Your task to perform on an android device: Clear the shopping cart on walmart. Add "usb-c to usb-b" to the cart on walmart, then select checkout. Image 0: 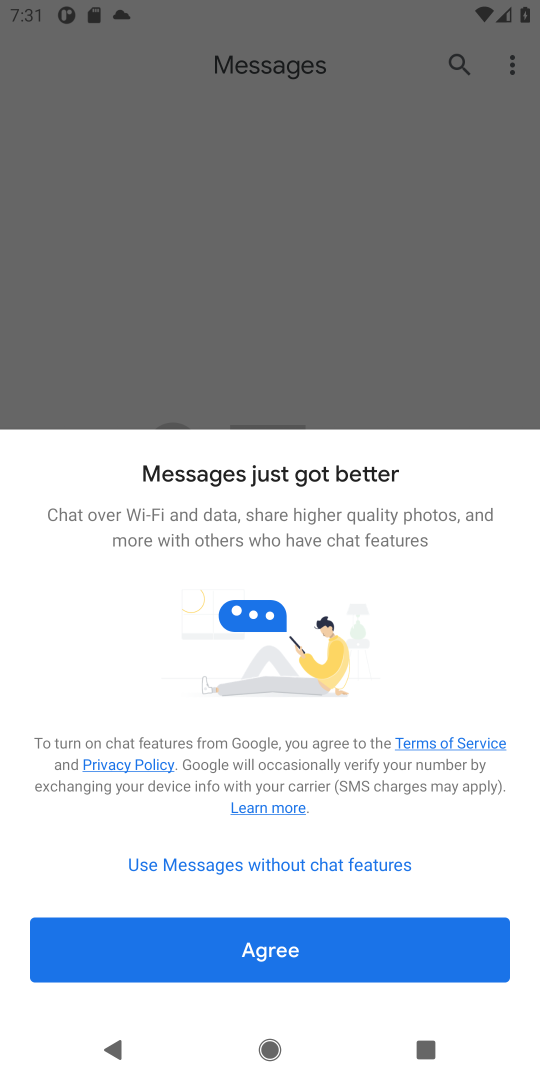
Step 0: press home button
Your task to perform on an android device: Clear the shopping cart on walmart. Add "usb-c to usb-b" to the cart on walmart, then select checkout. Image 1: 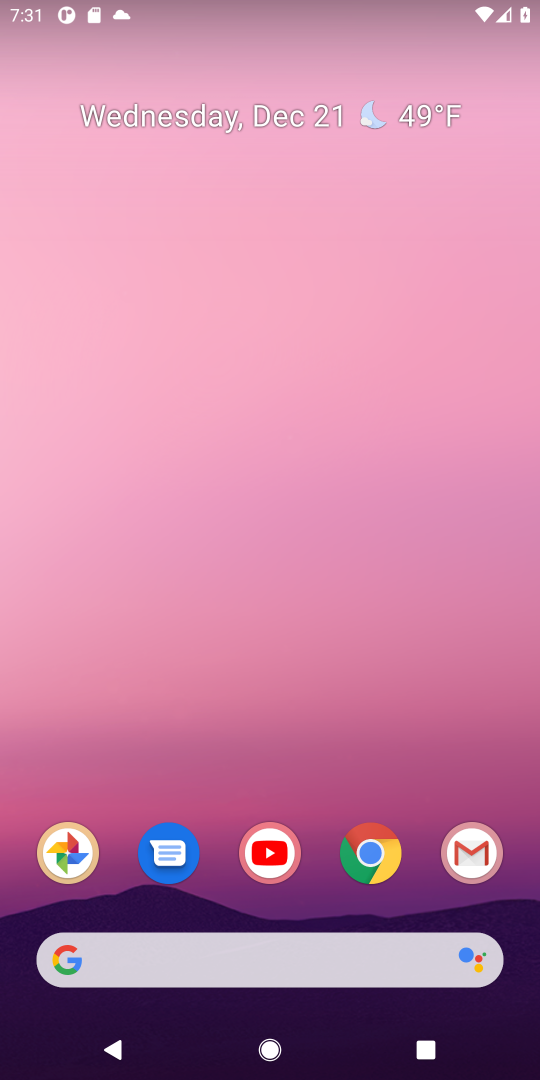
Step 1: click (362, 846)
Your task to perform on an android device: Clear the shopping cart on walmart. Add "usb-c to usb-b" to the cart on walmart, then select checkout. Image 2: 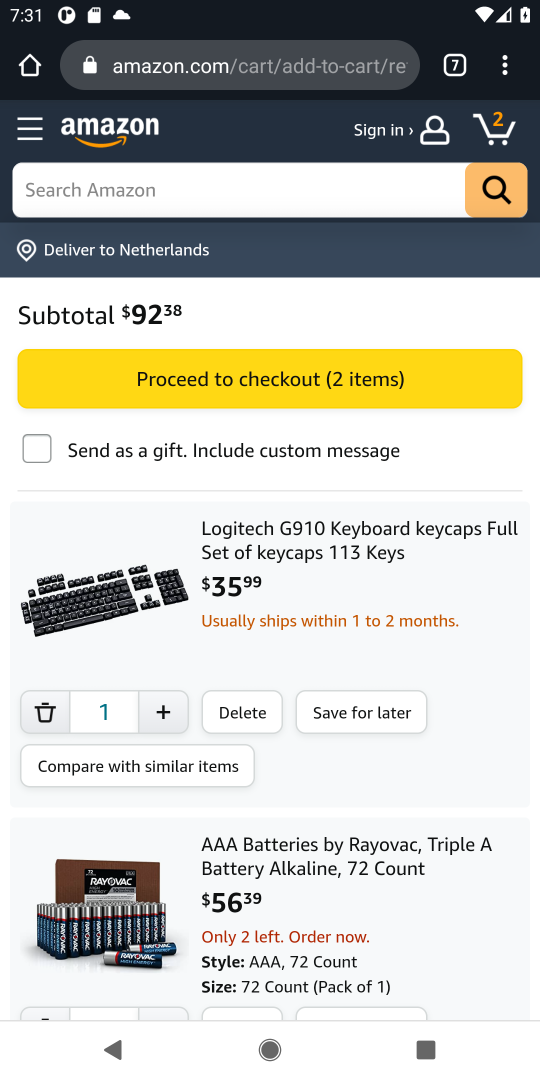
Step 2: click (455, 65)
Your task to perform on an android device: Clear the shopping cart on walmart. Add "usb-c to usb-b" to the cart on walmart, then select checkout. Image 3: 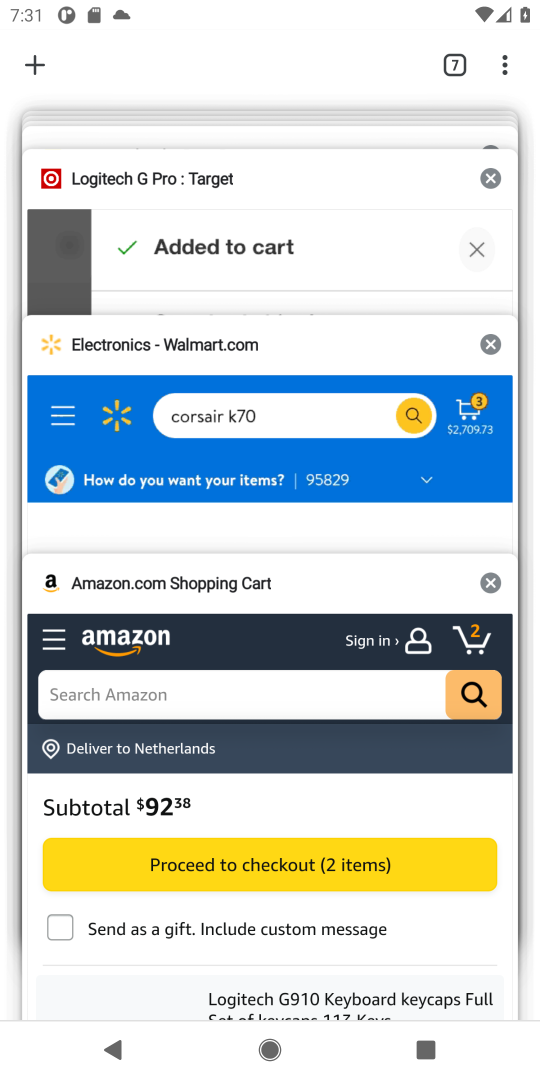
Step 3: click (282, 270)
Your task to perform on an android device: Clear the shopping cart on walmart. Add "usb-c to usb-b" to the cart on walmart, then select checkout. Image 4: 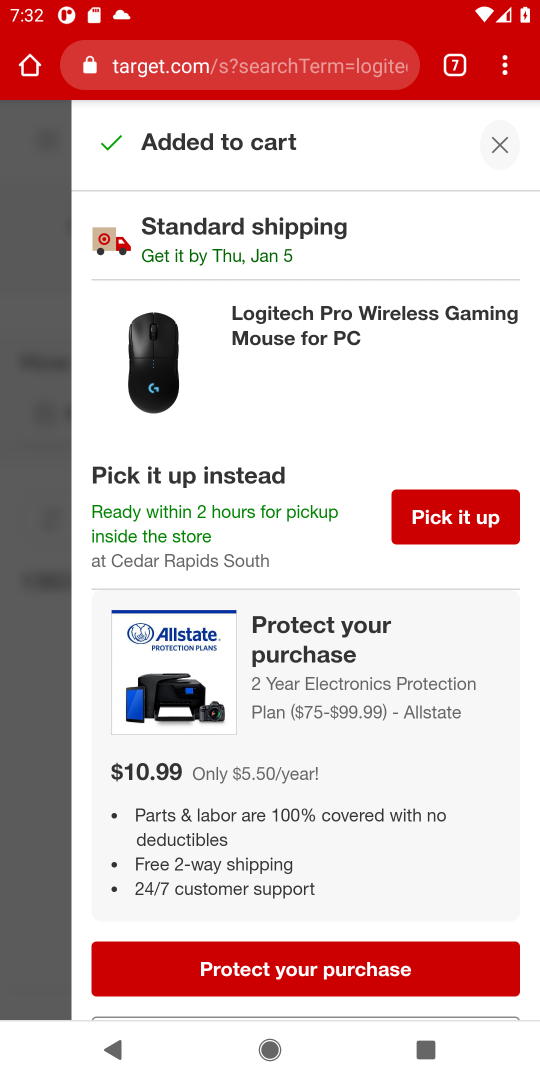
Step 4: click (465, 69)
Your task to perform on an android device: Clear the shopping cart on walmart. Add "usb-c to usb-b" to the cart on walmart, then select checkout. Image 5: 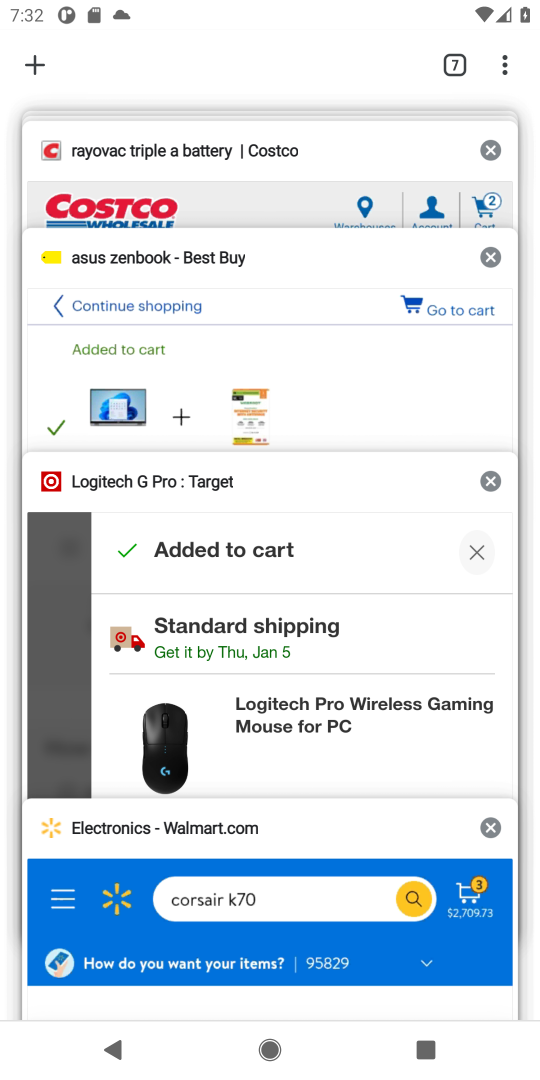
Step 5: click (137, 863)
Your task to perform on an android device: Clear the shopping cart on walmart. Add "usb-c to usb-b" to the cart on walmart, then select checkout. Image 6: 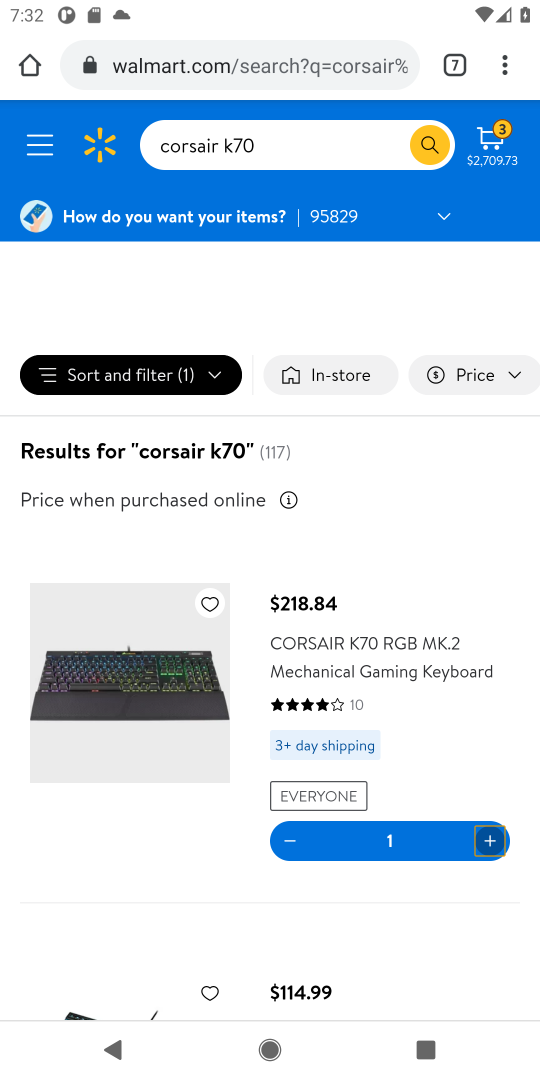
Step 6: click (486, 157)
Your task to perform on an android device: Clear the shopping cart on walmart. Add "usb-c to usb-b" to the cart on walmart, then select checkout. Image 7: 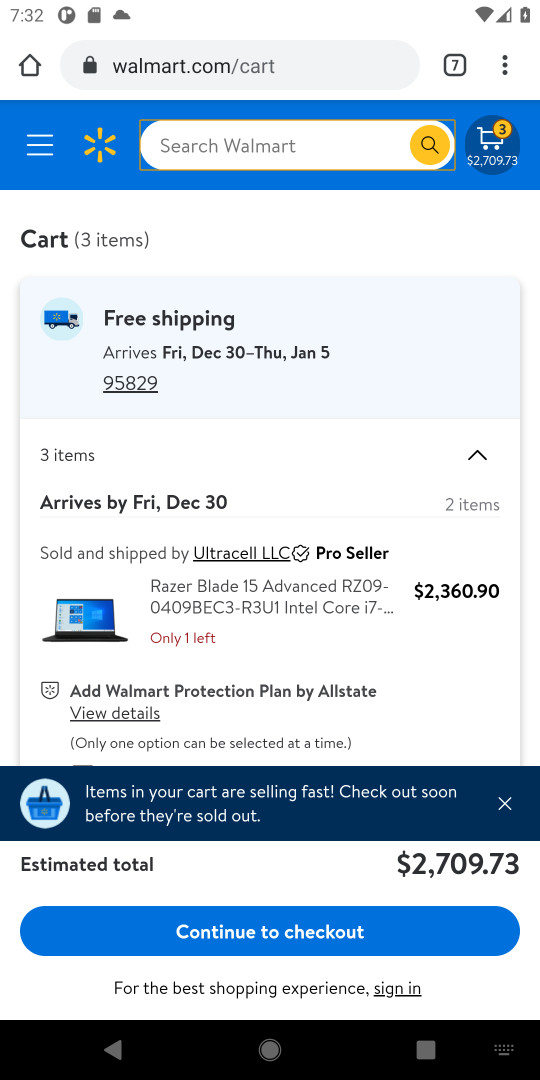
Step 7: drag from (376, 681) to (452, 172)
Your task to perform on an android device: Clear the shopping cart on walmart. Add "usb-c to usb-b" to the cart on walmart, then select checkout. Image 8: 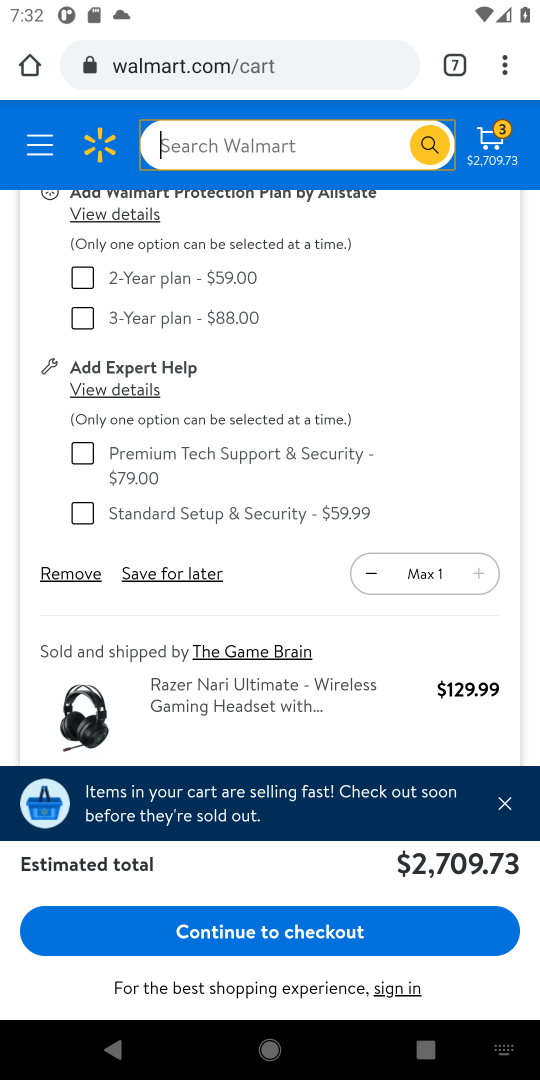
Step 8: click (64, 568)
Your task to perform on an android device: Clear the shopping cart on walmart. Add "usb-c to usb-b" to the cart on walmart, then select checkout. Image 9: 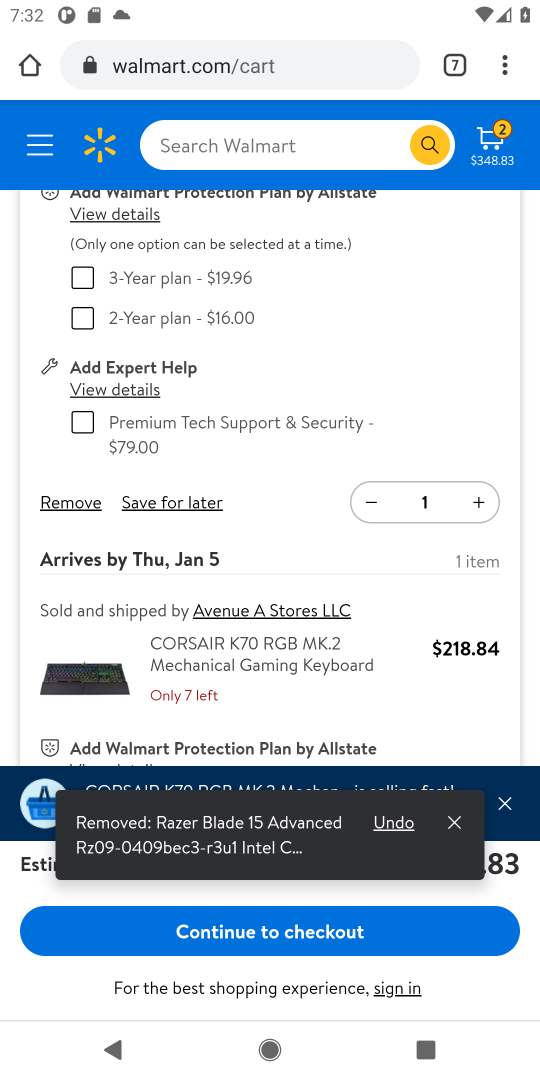
Step 9: click (67, 500)
Your task to perform on an android device: Clear the shopping cart on walmart. Add "usb-c to usb-b" to the cart on walmart, then select checkout. Image 10: 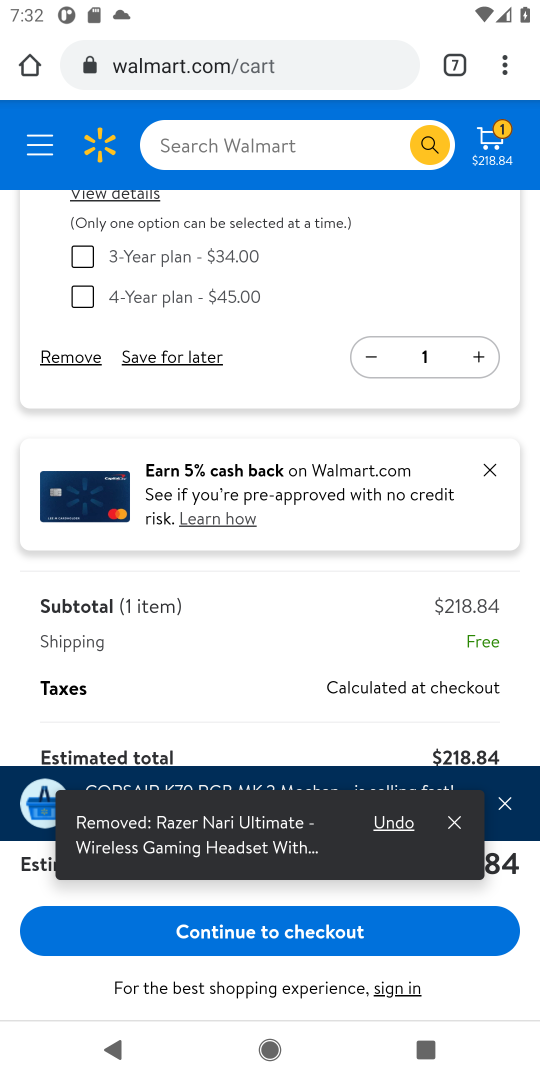
Step 10: click (70, 362)
Your task to perform on an android device: Clear the shopping cart on walmart. Add "usb-c to usb-b" to the cart on walmart, then select checkout. Image 11: 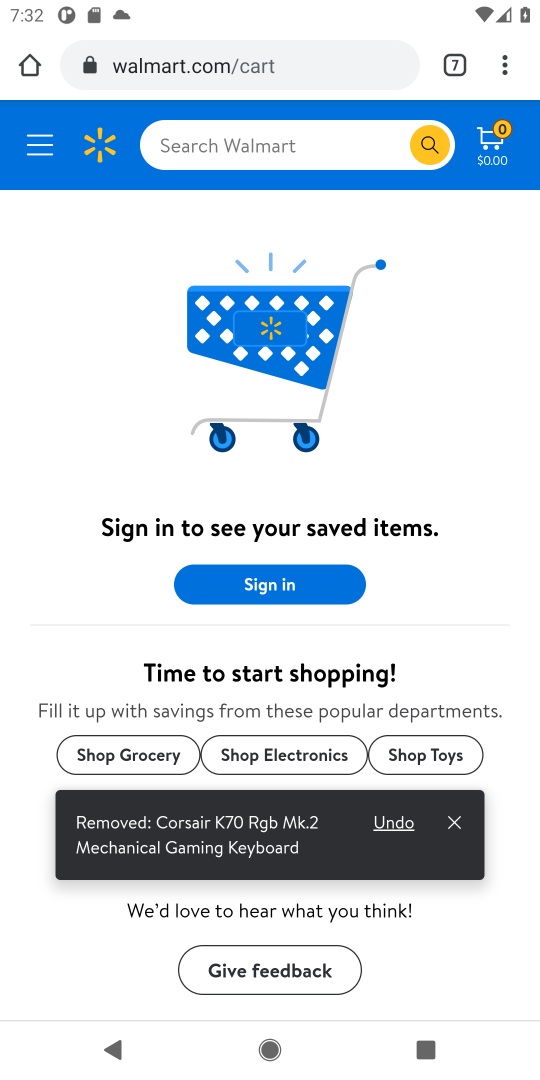
Step 11: click (252, 145)
Your task to perform on an android device: Clear the shopping cart on walmart. Add "usb-c to usb-b" to the cart on walmart, then select checkout. Image 12: 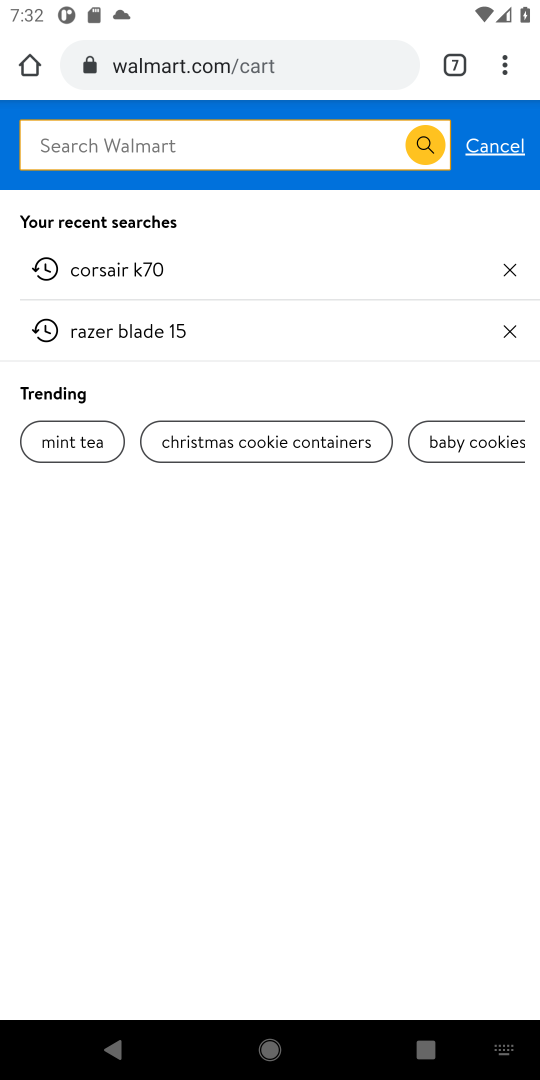
Step 12: type "usb-c to usb-b"
Your task to perform on an android device: Clear the shopping cart on walmart. Add "usb-c to usb-b" to the cart on walmart, then select checkout. Image 13: 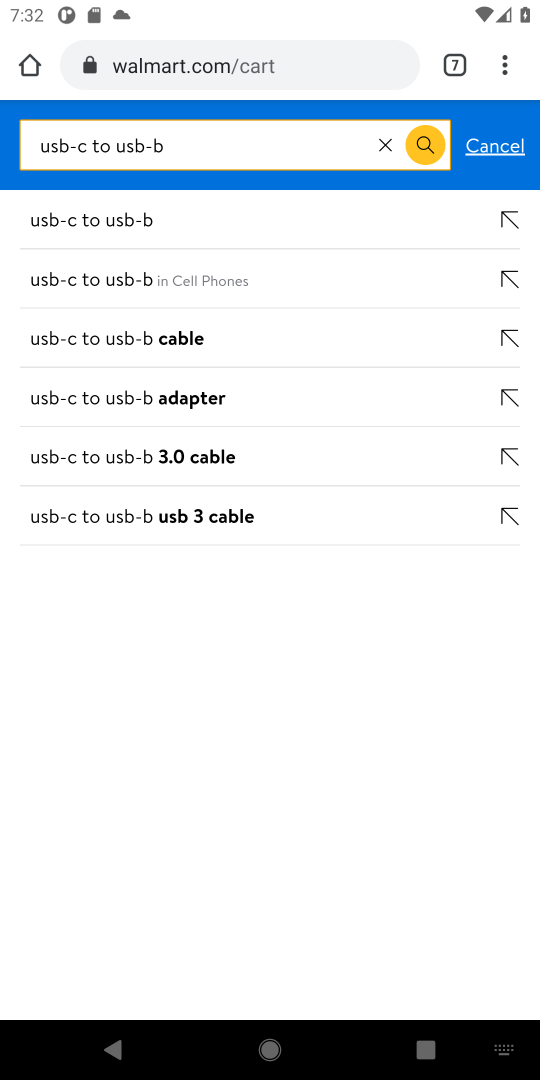
Step 13: click (98, 281)
Your task to perform on an android device: Clear the shopping cart on walmart. Add "usb-c to usb-b" to the cart on walmart, then select checkout. Image 14: 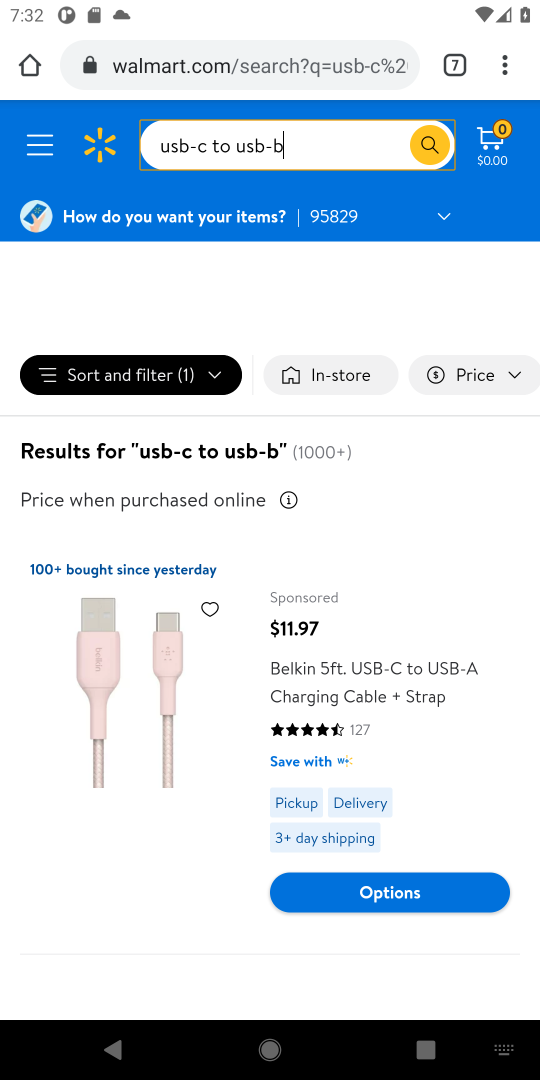
Step 14: click (375, 678)
Your task to perform on an android device: Clear the shopping cart on walmart. Add "usb-c to usb-b" to the cart on walmart, then select checkout. Image 15: 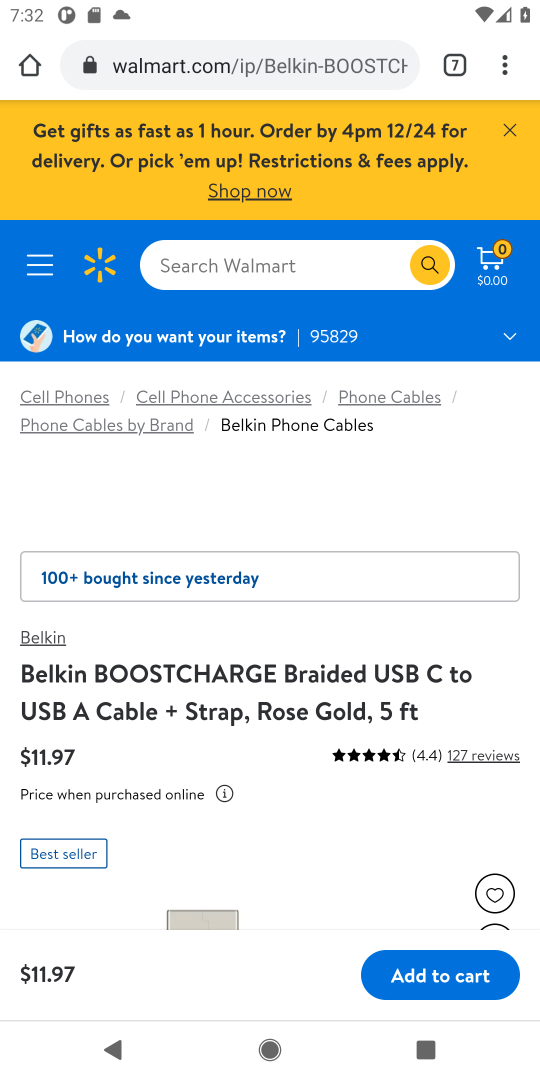
Step 15: click (411, 978)
Your task to perform on an android device: Clear the shopping cart on walmart. Add "usb-c to usb-b" to the cart on walmart, then select checkout. Image 16: 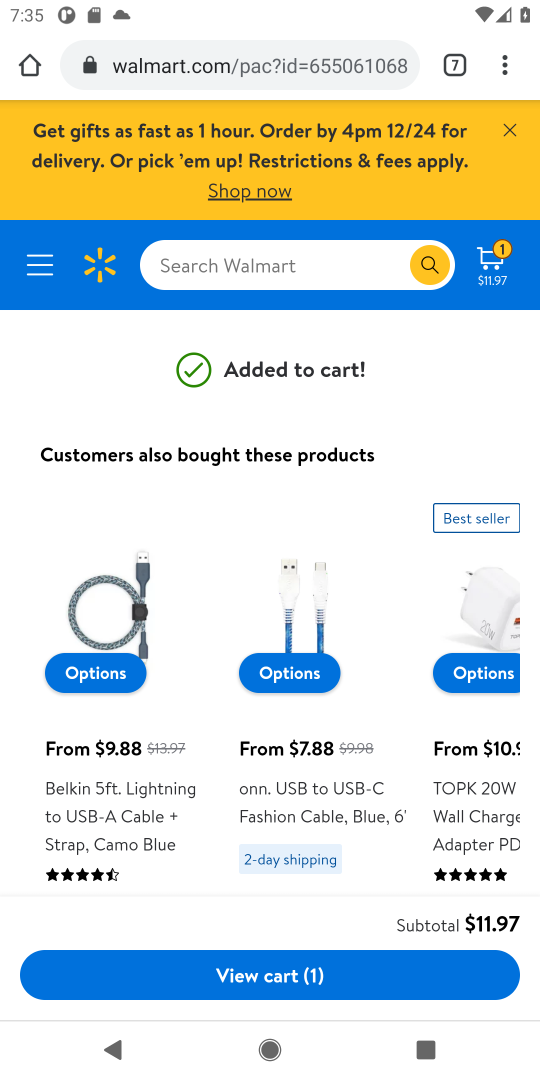
Step 16: task complete